Your task to perform on an android device: turn off priority inbox in the gmail app Image 0: 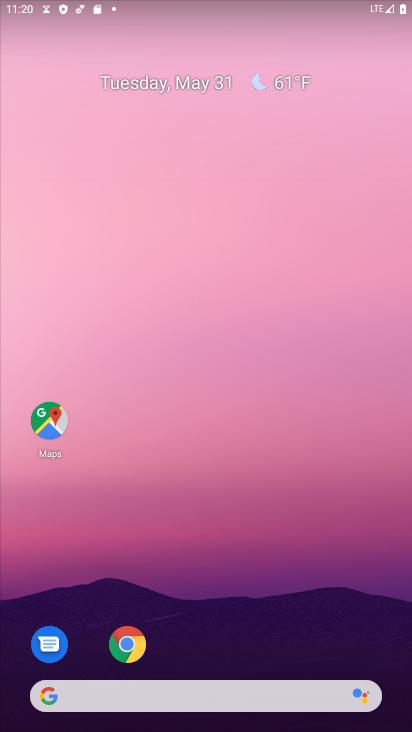
Step 0: drag from (215, 564) to (309, 143)
Your task to perform on an android device: turn off priority inbox in the gmail app Image 1: 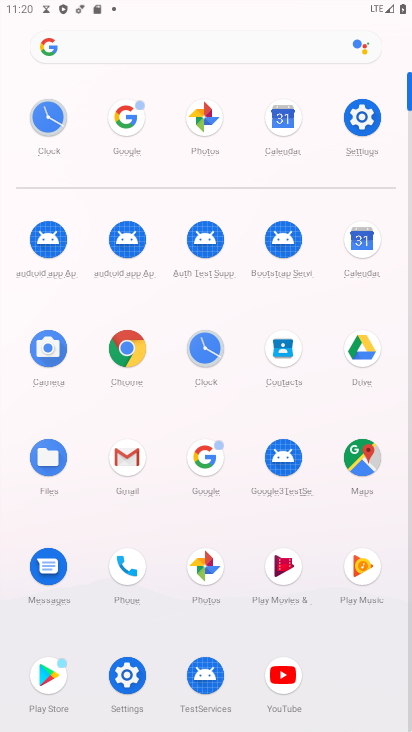
Step 1: click (127, 455)
Your task to perform on an android device: turn off priority inbox in the gmail app Image 2: 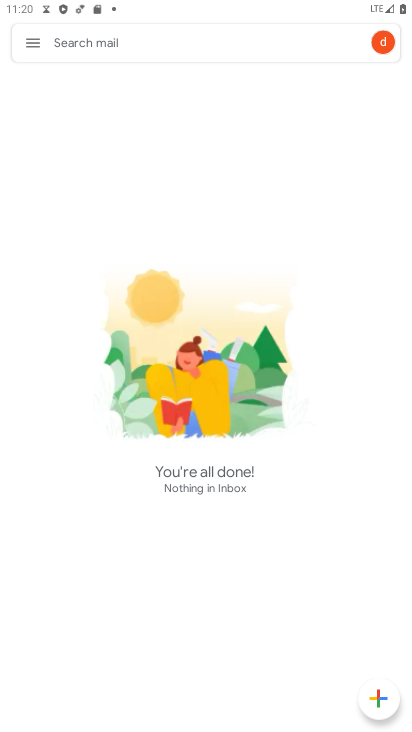
Step 2: click (40, 41)
Your task to perform on an android device: turn off priority inbox in the gmail app Image 3: 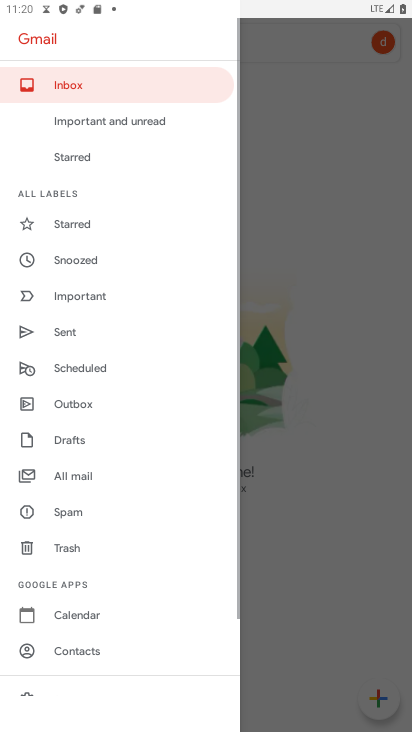
Step 3: drag from (133, 543) to (164, 181)
Your task to perform on an android device: turn off priority inbox in the gmail app Image 4: 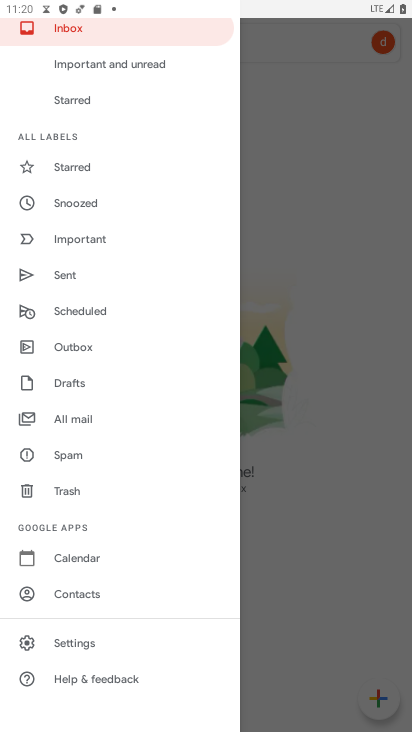
Step 4: click (71, 638)
Your task to perform on an android device: turn off priority inbox in the gmail app Image 5: 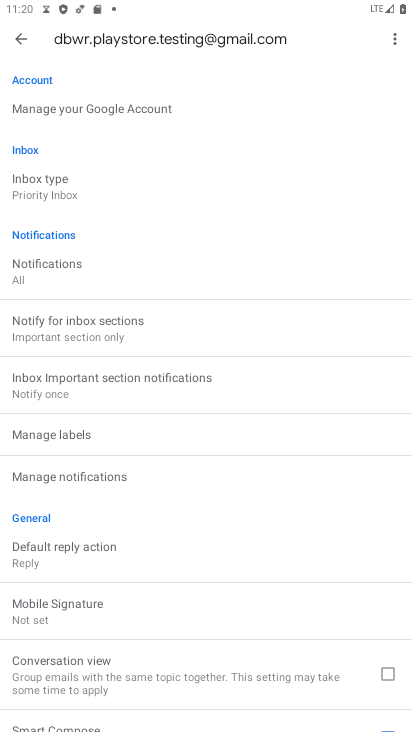
Step 5: click (37, 175)
Your task to perform on an android device: turn off priority inbox in the gmail app Image 6: 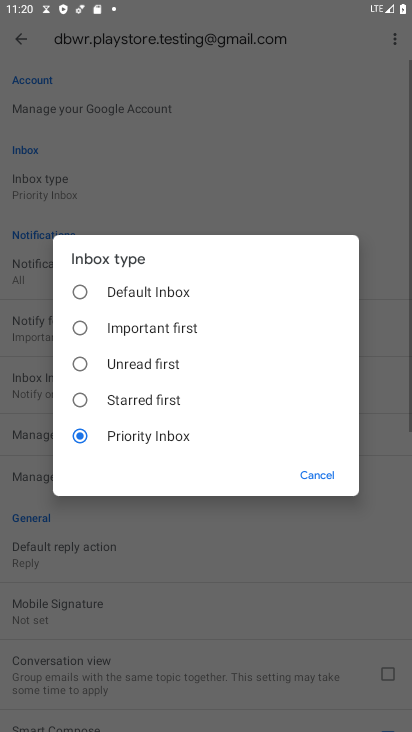
Step 6: click (71, 281)
Your task to perform on an android device: turn off priority inbox in the gmail app Image 7: 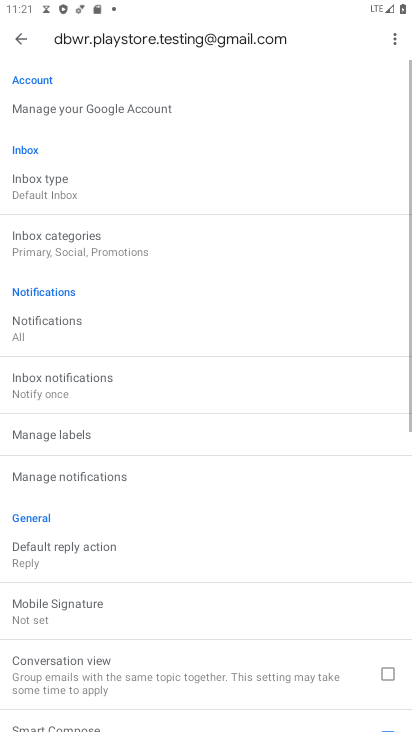
Step 7: task complete